Your task to perform on an android device: Search for "jbl charge 4" on costco, select the first entry, add it to the cart, then select checkout. Image 0: 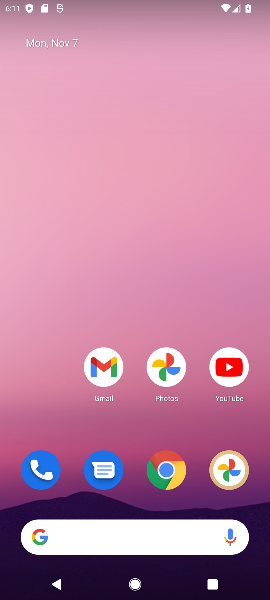
Step 0: click (166, 468)
Your task to perform on an android device: Search for "jbl charge 4" on costco, select the first entry, add it to the cart, then select checkout. Image 1: 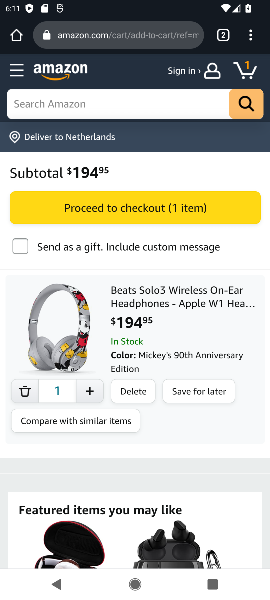
Step 1: click (81, 42)
Your task to perform on an android device: Search for "jbl charge 4" on costco, select the first entry, add it to the cart, then select checkout. Image 2: 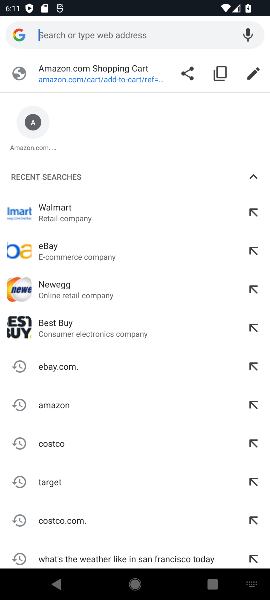
Step 2: click (87, 437)
Your task to perform on an android device: Search for "jbl charge 4" on costco, select the first entry, add it to the cart, then select checkout. Image 3: 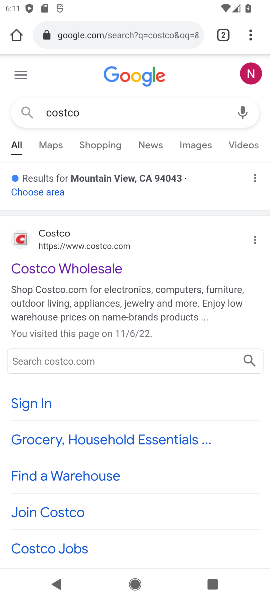
Step 3: click (101, 272)
Your task to perform on an android device: Search for "jbl charge 4" on costco, select the first entry, add it to the cart, then select checkout. Image 4: 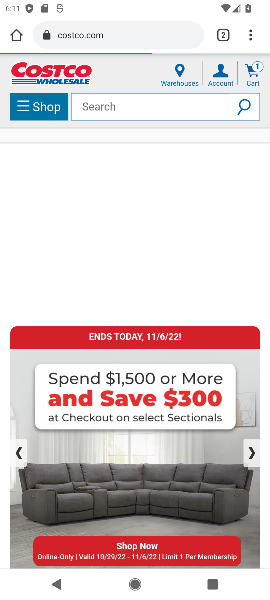
Step 4: click (111, 107)
Your task to perform on an android device: Search for "jbl charge 4" on costco, select the first entry, add it to the cart, then select checkout. Image 5: 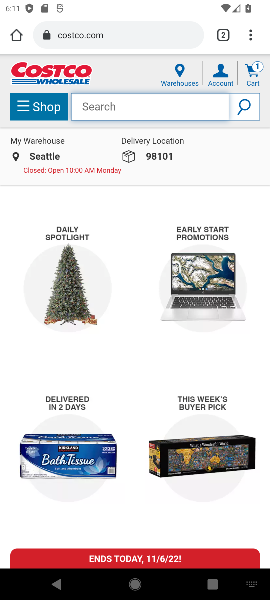
Step 5: type "beats solo 3"
Your task to perform on an android device: Search for "jbl charge 4" on costco, select the first entry, add it to the cart, then select checkout. Image 6: 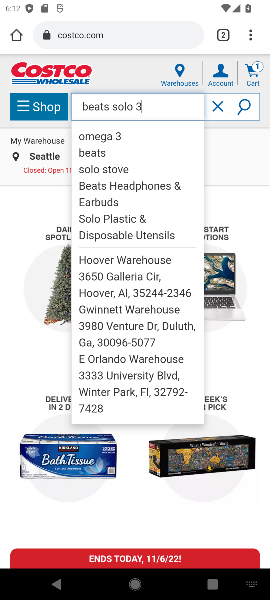
Step 6: click (243, 103)
Your task to perform on an android device: Search for "jbl charge 4" on costco, select the first entry, add it to the cart, then select checkout. Image 7: 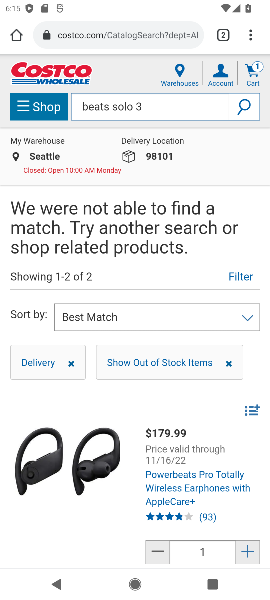
Step 7: task complete